Your task to perform on an android device: What's the weather today? Image 0: 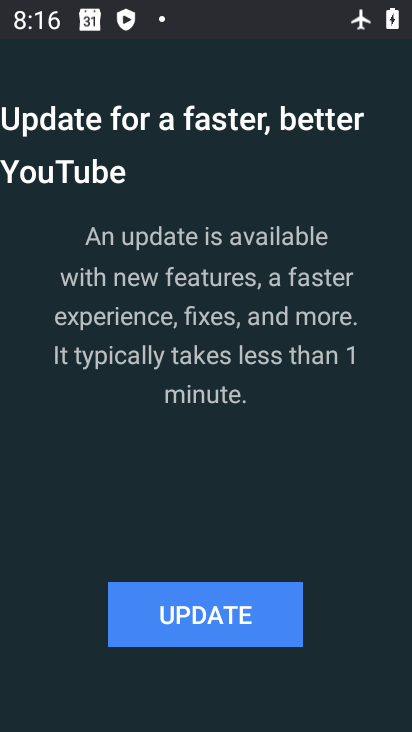
Step 0: press home button
Your task to perform on an android device: What's the weather today? Image 1: 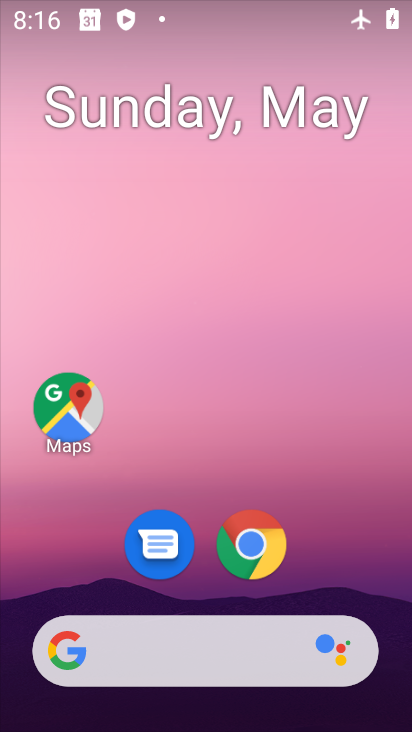
Step 1: drag from (371, 443) to (215, 1)
Your task to perform on an android device: What's the weather today? Image 2: 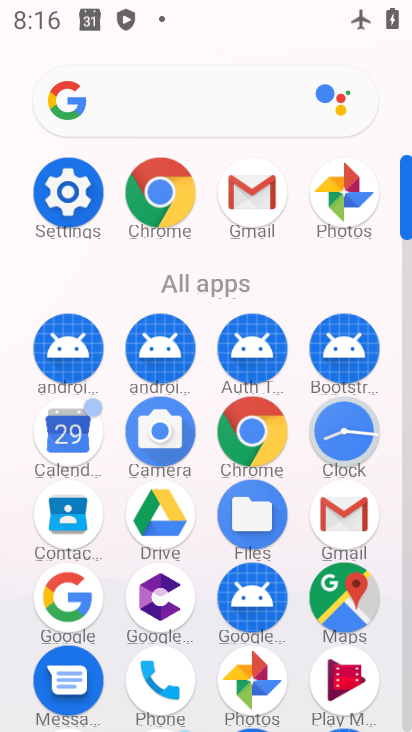
Step 2: click (58, 72)
Your task to perform on an android device: What's the weather today? Image 3: 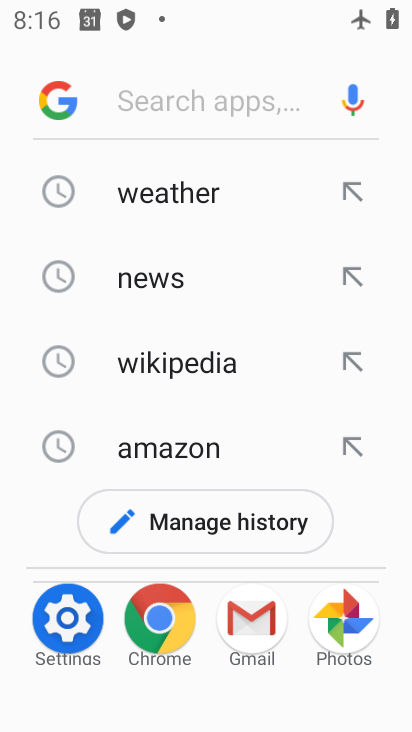
Step 3: click (62, 91)
Your task to perform on an android device: What's the weather today? Image 4: 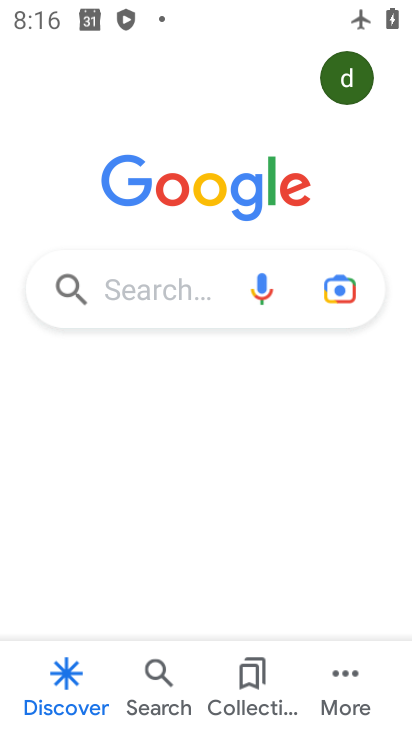
Step 4: drag from (265, 470) to (278, 77)
Your task to perform on an android device: What's the weather today? Image 5: 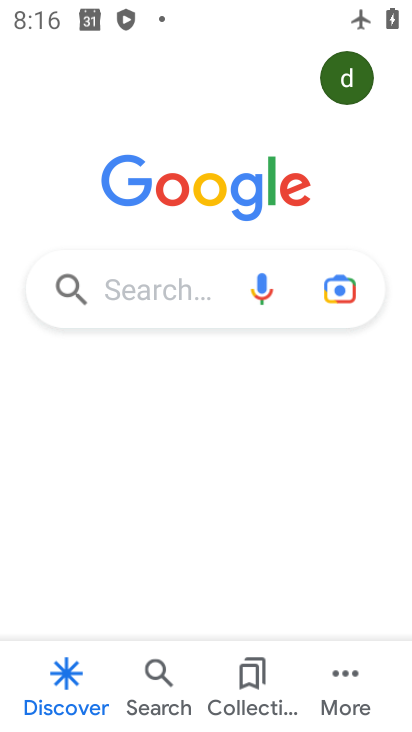
Step 5: click (97, 200)
Your task to perform on an android device: What's the weather today? Image 6: 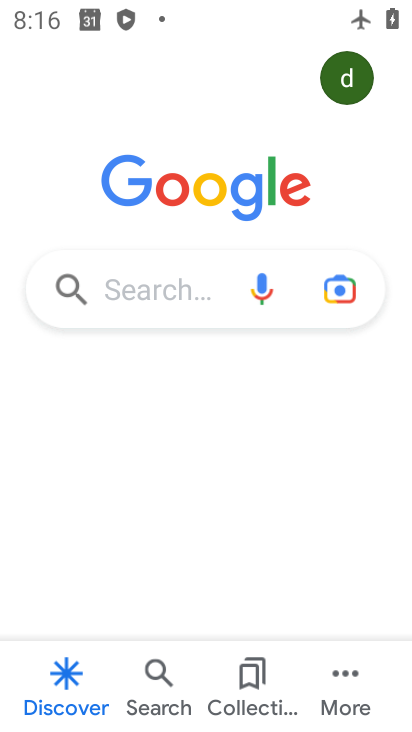
Step 6: task complete